Your task to perform on an android device: toggle sleep mode Image 0: 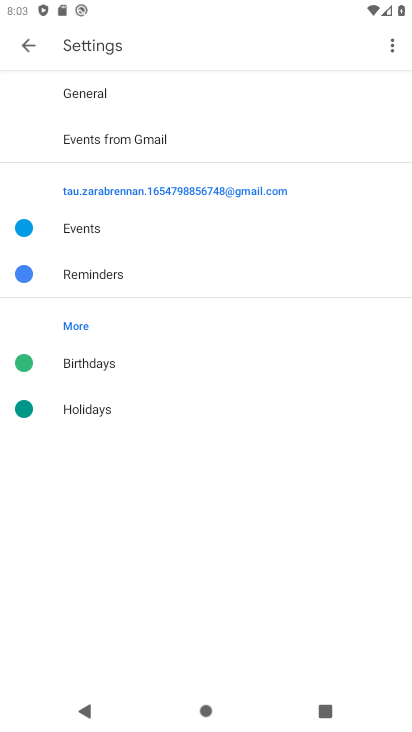
Step 0: press home button
Your task to perform on an android device: toggle sleep mode Image 1: 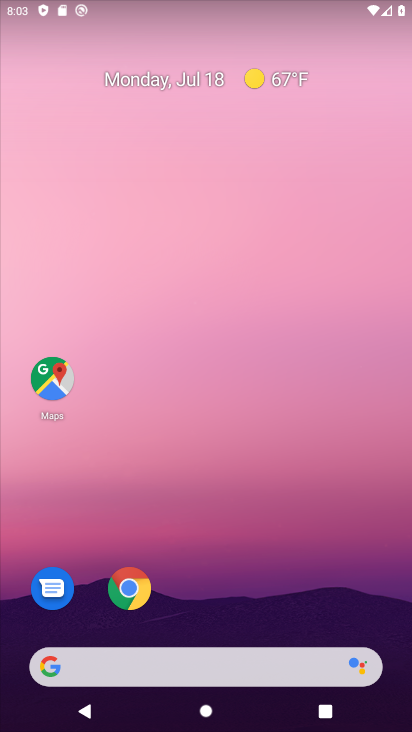
Step 1: drag from (243, 602) to (224, 128)
Your task to perform on an android device: toggle sleep mode Image 2: 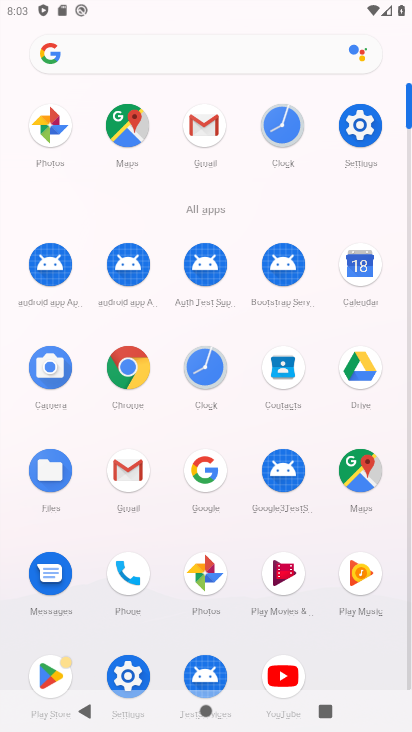
Step 2: click (349, 127)
Your task to perform on an android device: toggle sleep mode Image 3: 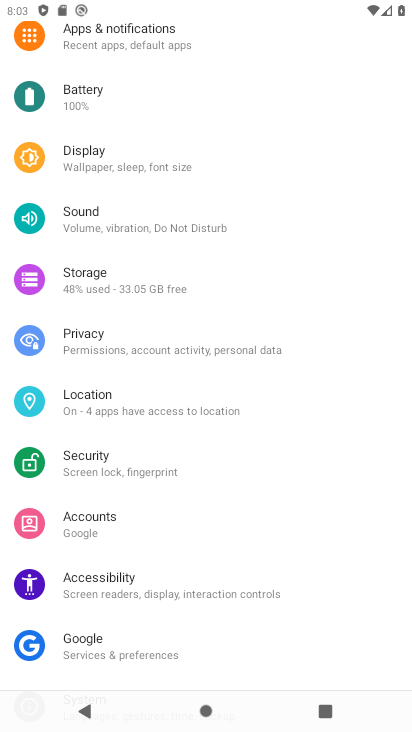
Step 3: click (172, 173)
Your task to perform on an android device: toggle sleep mode Image 4: 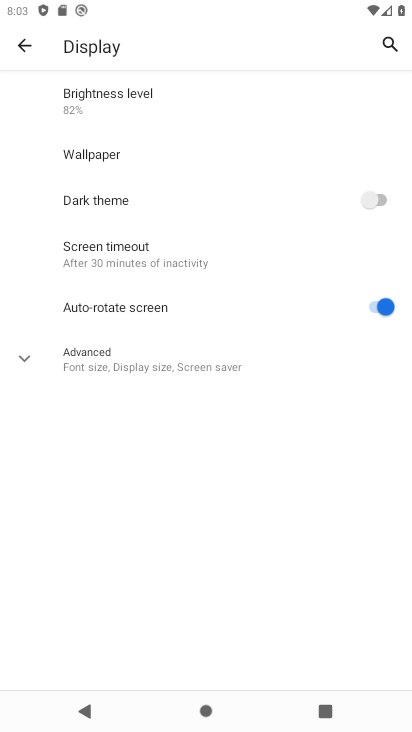
Step 4: click (200, 353)
Your task to perform on an android device: toggle sleep mode Image 5: 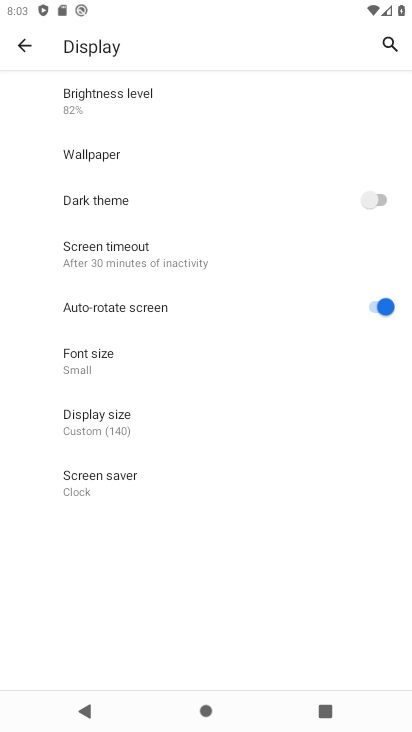
Step 5: task complete